Your task to perform on an android device: visit the assistant section in the google photos Image 0: 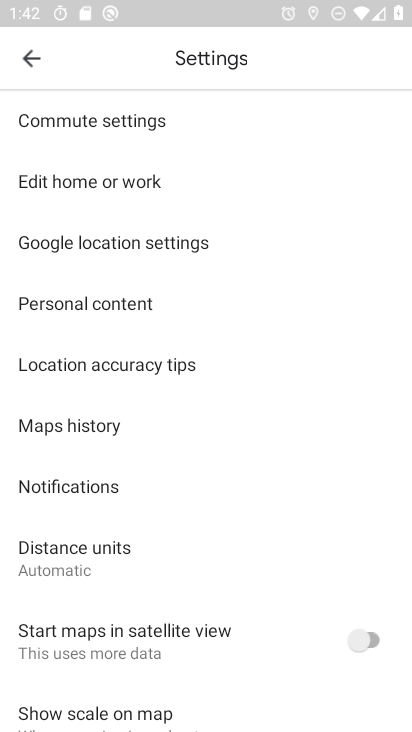
Step 0: press home button
Your task to perform on an android device: visit the assistant section in the google photos Image 1: 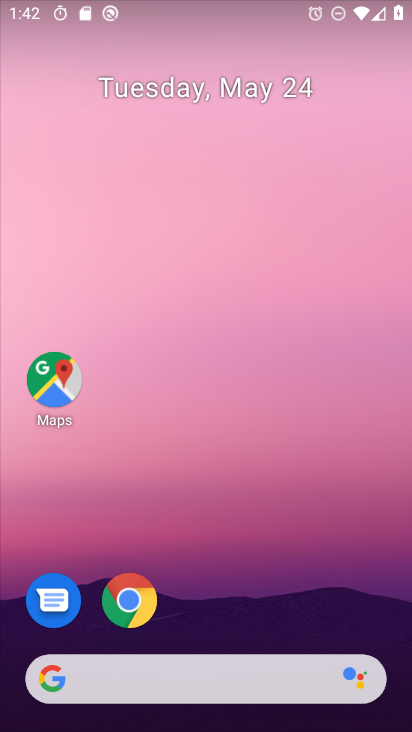
Step 1: drag from (242, 560) to (255, 138)
Your task to perform on an android device: visit the assistant section in the google photos Image 2: 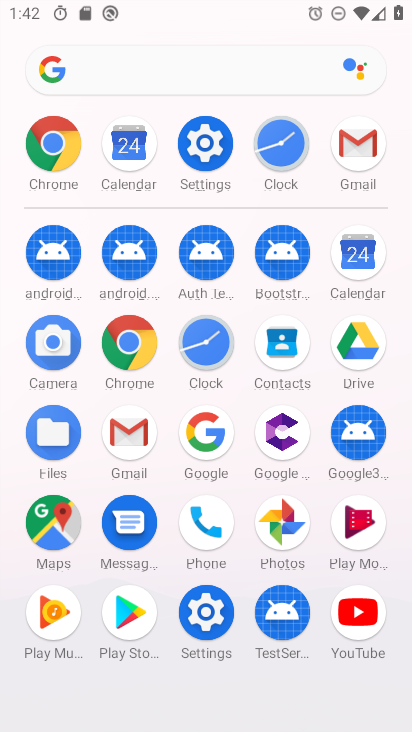
Step 2: click (294, 530)
Your task to perform on an android device: visit the assistant section in the google photos Image 3: 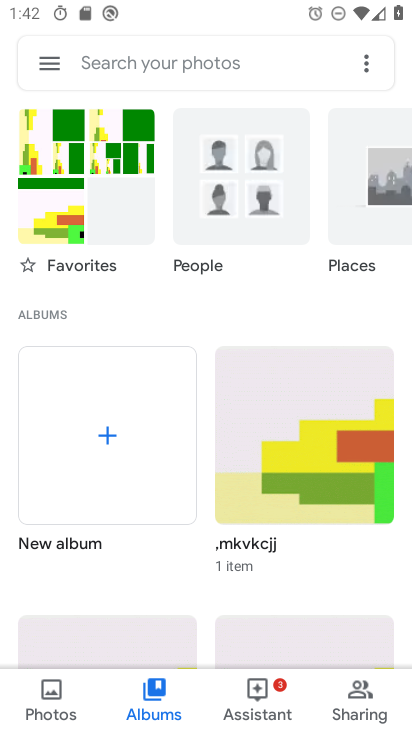
Step 3: click (258, 698)
Your task to perform on an android device: visit the assistant section in the google photos Image 4: 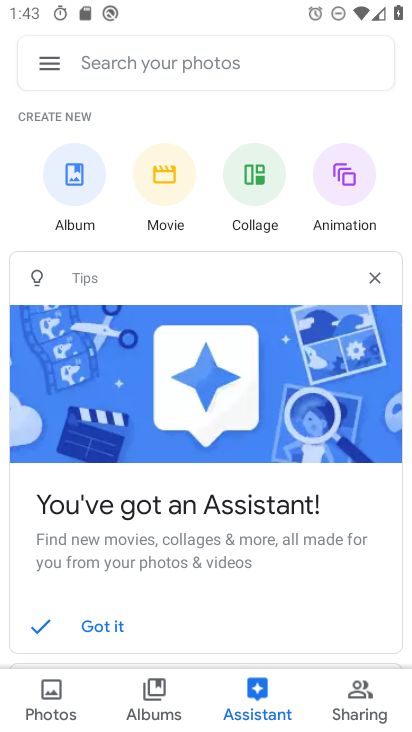
Step 4: task complete